Your task to perform on an android device: open app "DoorDash - Dasher" (install if not already installed) Image 0: 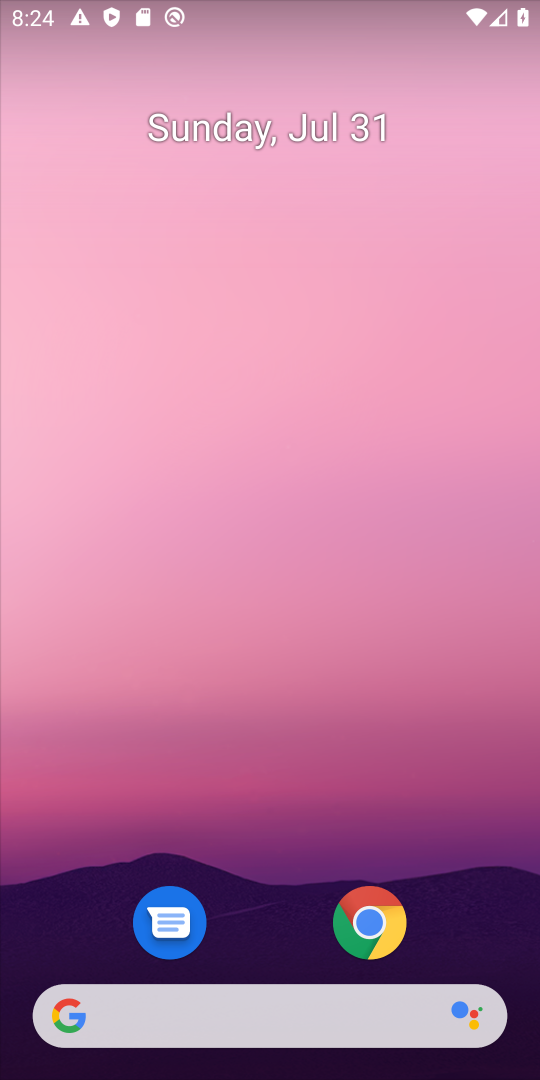
Step 0: drag from (249, 1074) to (225, 46)
Your task to perform on an android device: open app "DoorDash - Dasher" (install if not already installed) Image 1: 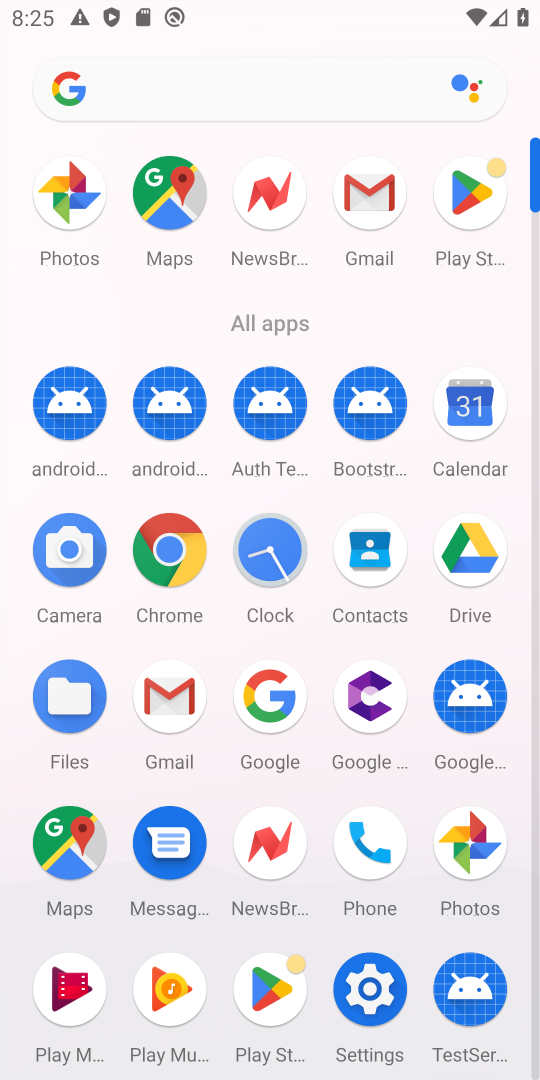
Step 1: click (263, 990)
Your task to perform on an android device: open app "DoorDash - Dasher" (install if not already installed) Image 2: 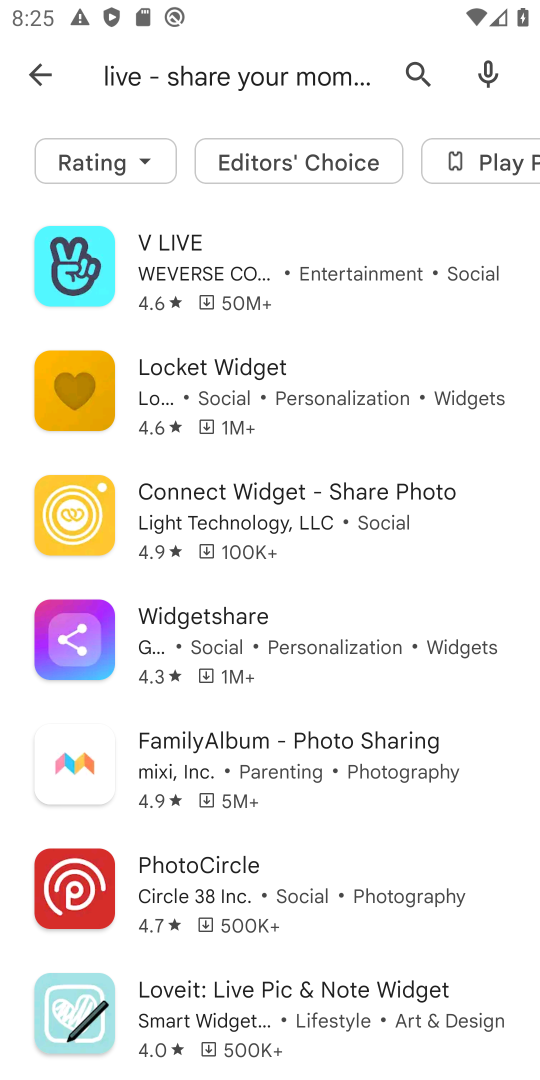
Step 2: click (396, 77)
Your task to perform on an android device: open app "DoorDash - Dasher" (install if not already installed) Image 3: 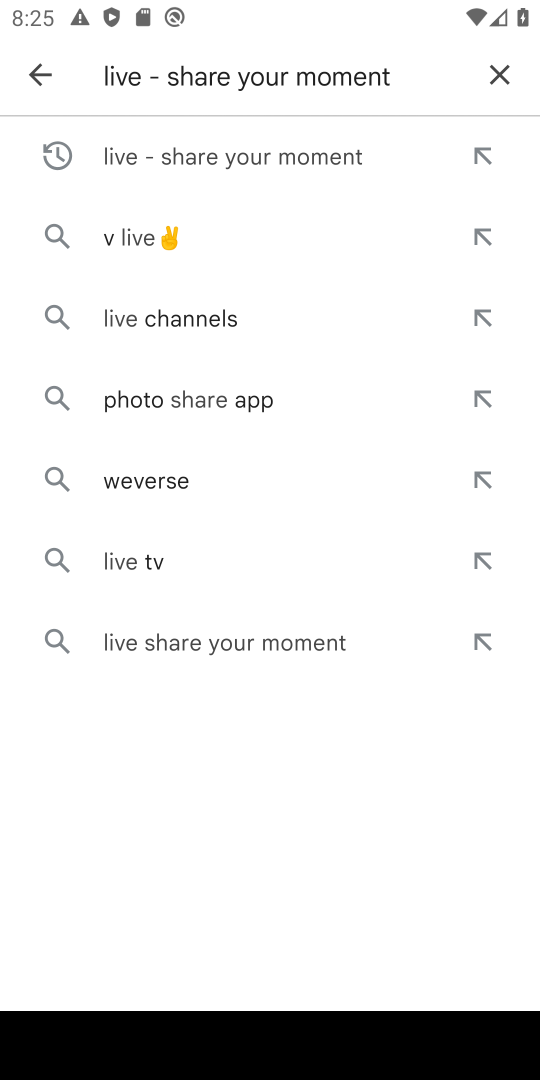
Step 3: click (501, 68)
Your task to perform on an android device: open app "DoorDash - Dasher" (install if not already installed) Image 4: 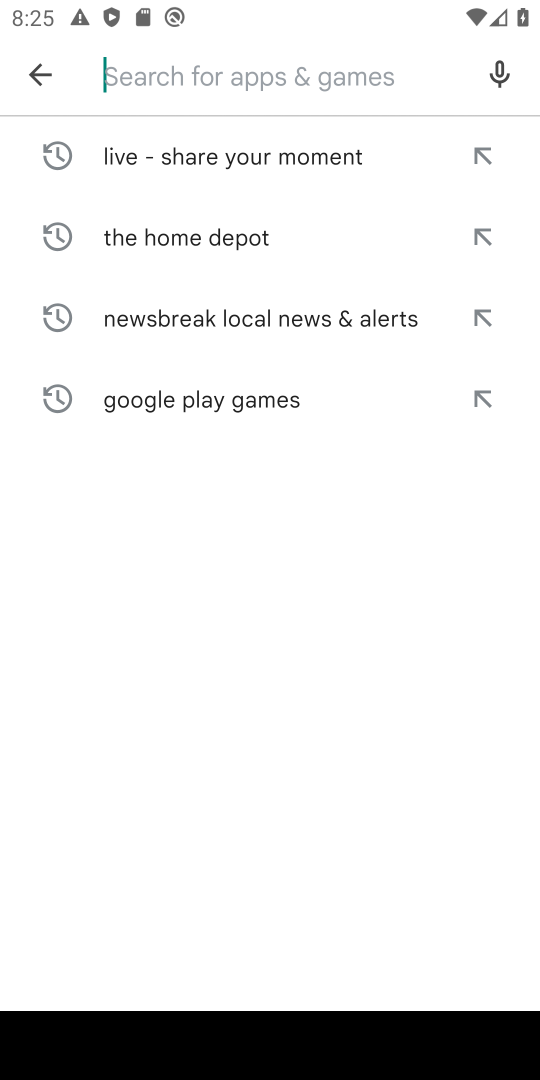
Step 4: type "DoorDash - Dasher"
Your task to perform on an android device: open app "DoorDash - Dasher" (install if not already installed) Image 5: 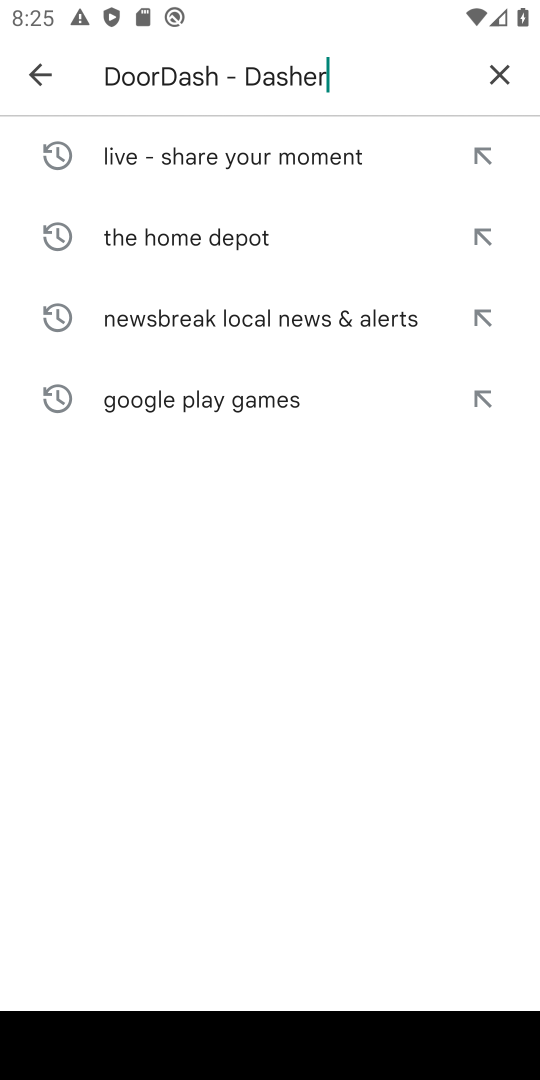
Step 5: type ""
Your task to perform on an android device: open app "DoorDash - Dasher" (install if not already installed) Image 6: 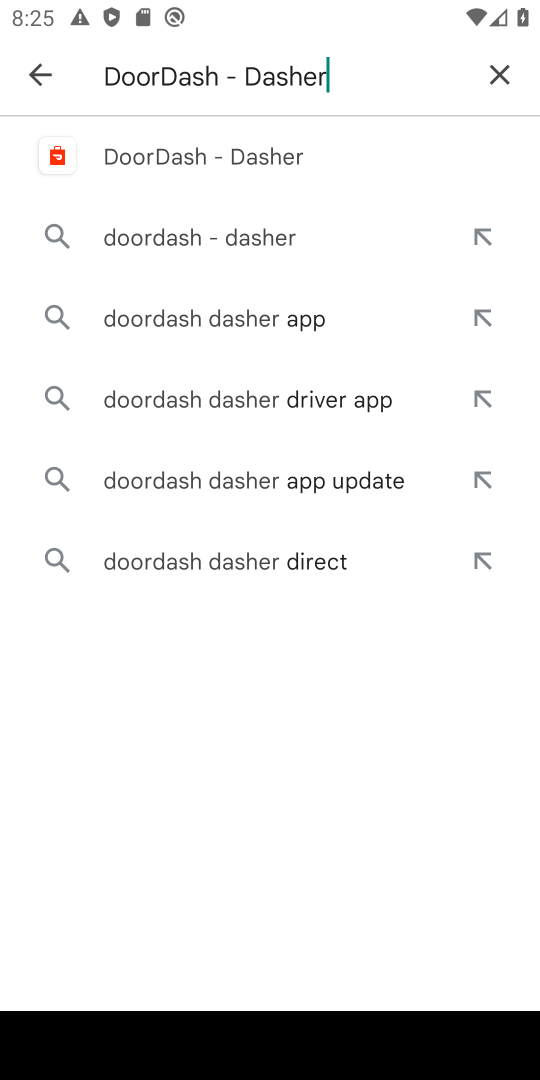
Step 6: click (239, 157)
Your task to perform on an android device: open app "DoorDash - Dasher" (install if not already installed) Image 7: 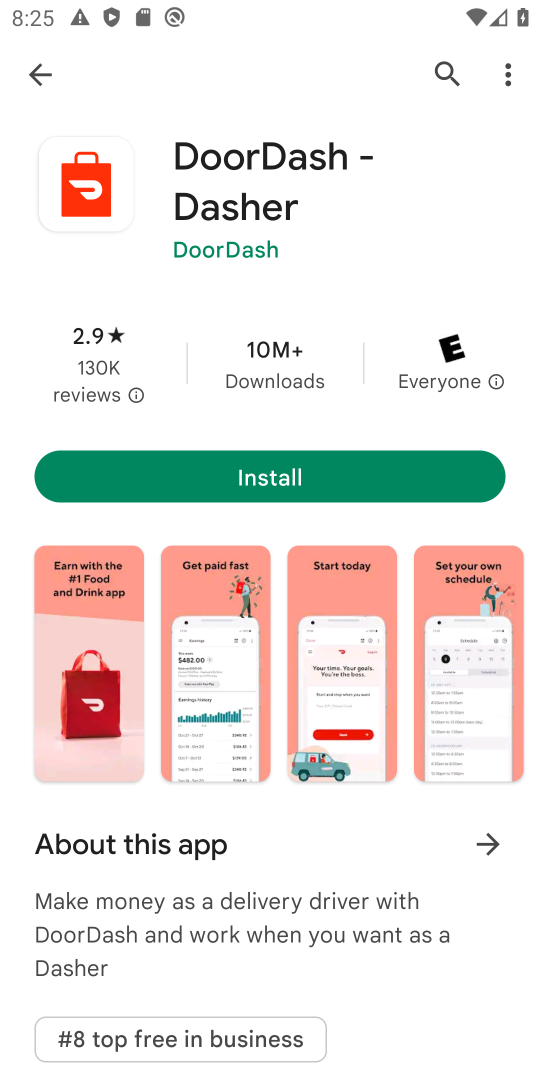
Step 7: click (266, 481)
Your task to perform on an android device: open app "DoorDash - Dasher" (install if not already installed) Image 8: 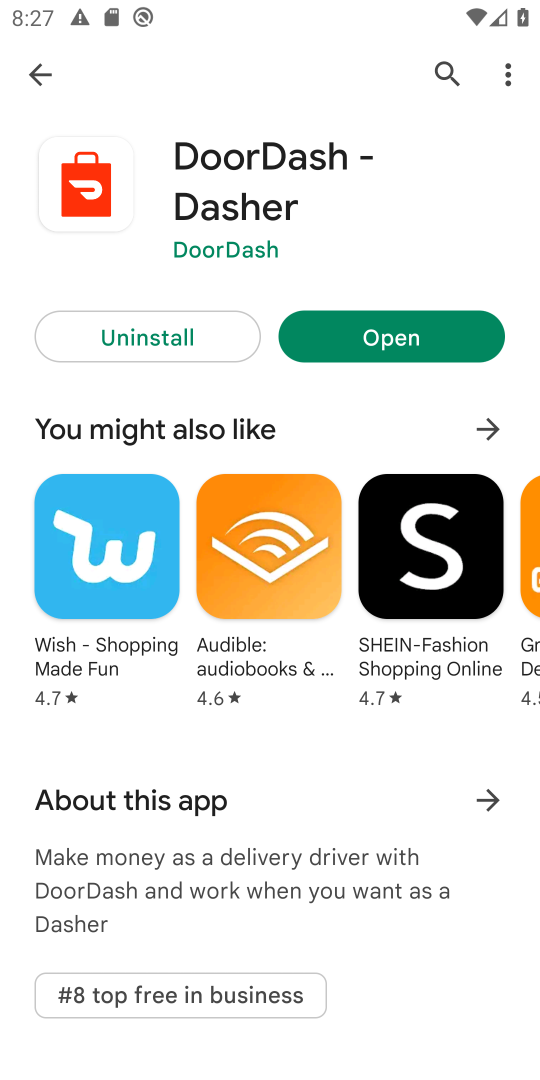
Step 8: task complete